Your task to perform on an android device: Go to display settings Image 0: 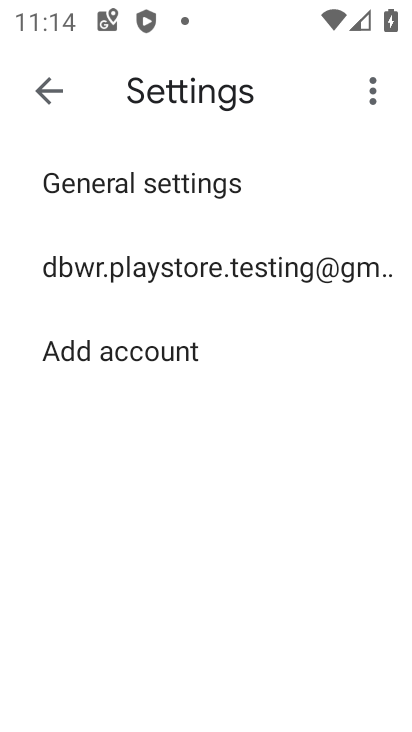
Step 0: press home button
Your task to perform on an android device: Go to display settings Image 1: 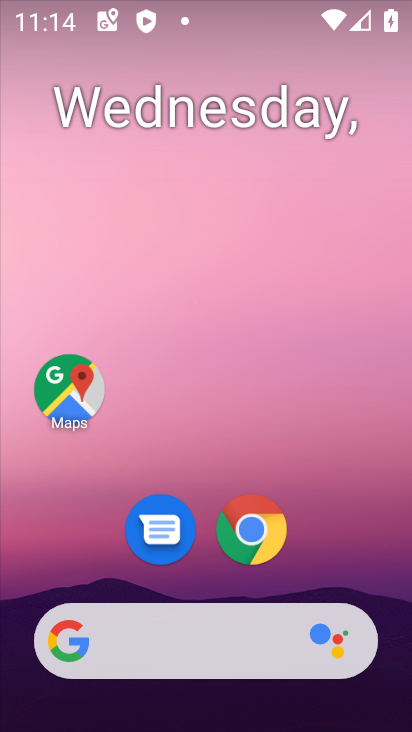
Step 1: drag from (181, 577) to (172, 8)
Your task to perform on an android device: Go to display settings Image 2: 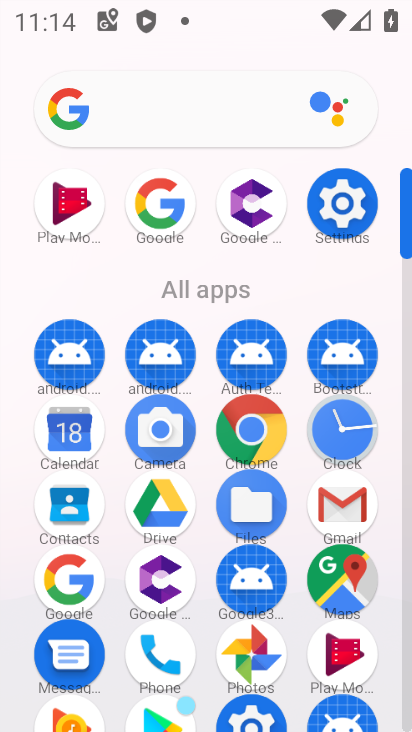
Step 2: click (330, 223)
Your task to perform on an android device: Go to display settings Image 3: 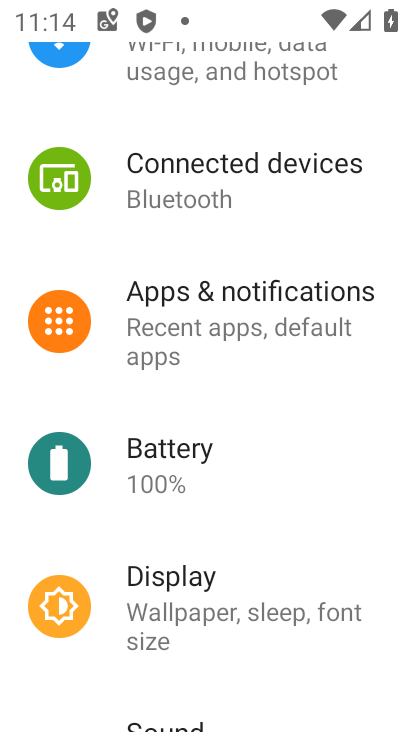
Step 3: click (166, 577)
Your task to perform on an android device: Go to display settings Image 4: 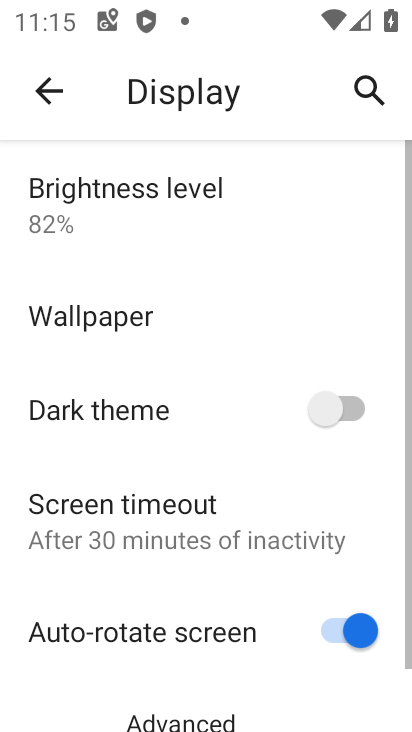
Step 4: drag from (168, 574) to (161, 47)
Your task to perform on an android device: Go to display settings Image 5: 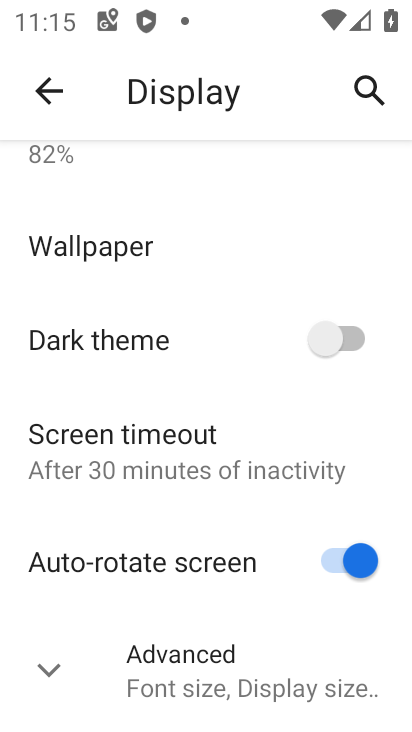
Step 5: click (160, 636)
Your task to perform on an android device: Go to display settings Image 6: 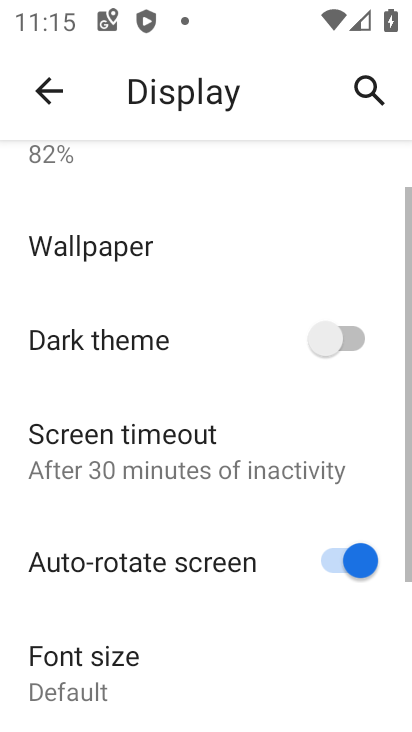
Step 6: task complete